Your task to perform on an android device: uninstall "Viber Messenger" Image 0: 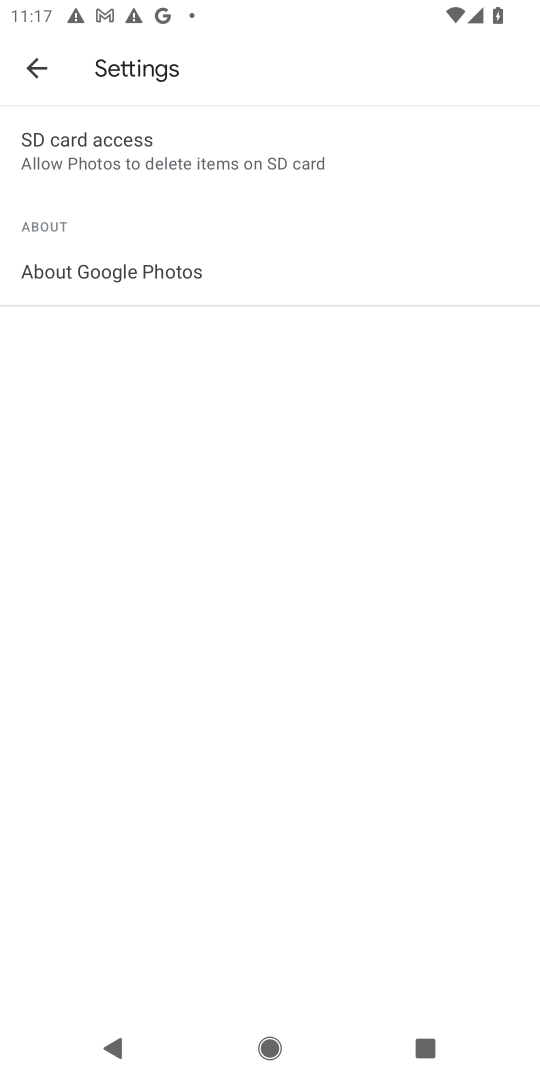
Step 0: press home button
Your task to perform on an android device: uninstall "Viber Messenger" Image 1: 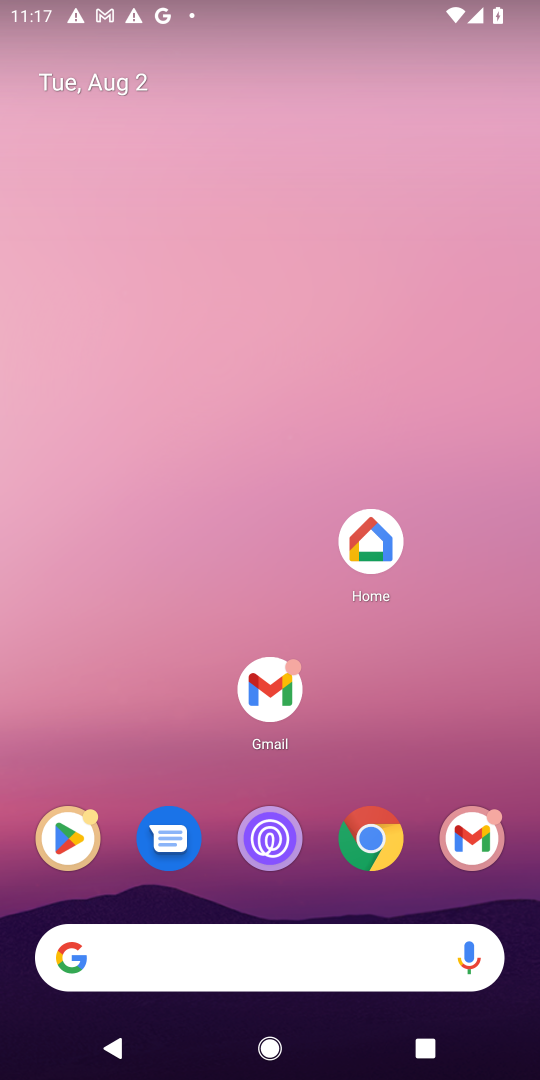
Step 1: drag from (414, 675) to (447, 151)
Your task to perform on an android device: uninstall "Viber Messenger" Image 2: 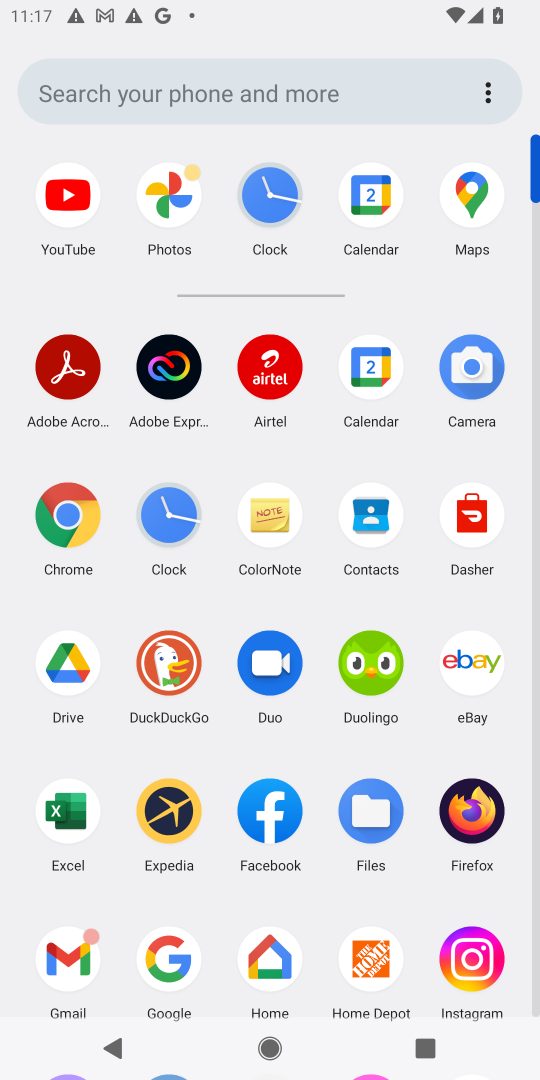
Step 2: drag from (408, 877) to (411, 524)
Your task to perform on an android device: uninstall "Viber Messenger" Image 3: 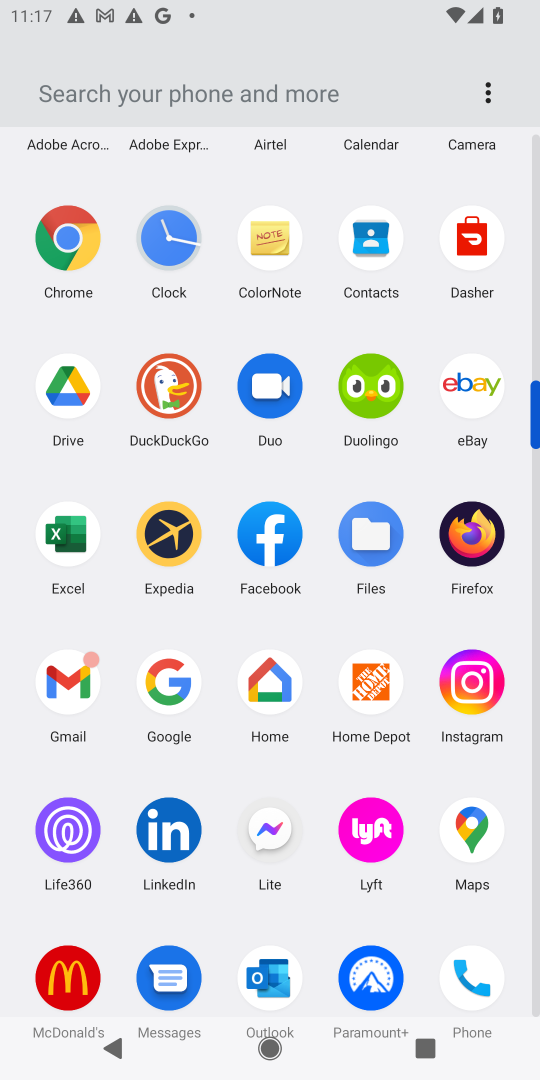
Step 3: drag from (416, 905) to (416, 589)
Your task to perform on an android device: uninstall "Viber Messenger" Image 4: 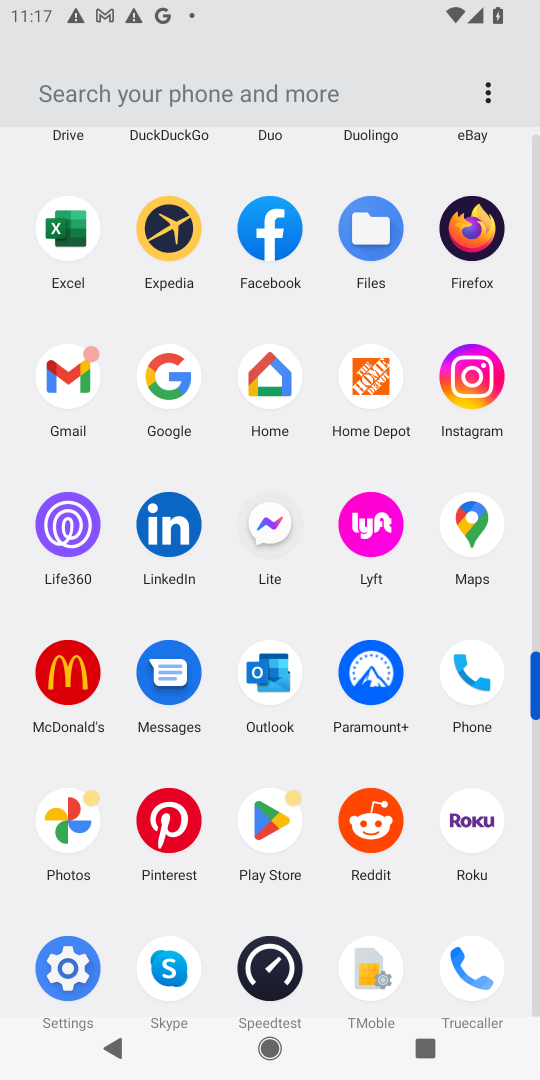
Step 4: click (276, 814)
Your task to perform on an android device: uninstall "Viber Messenger" Image 5: 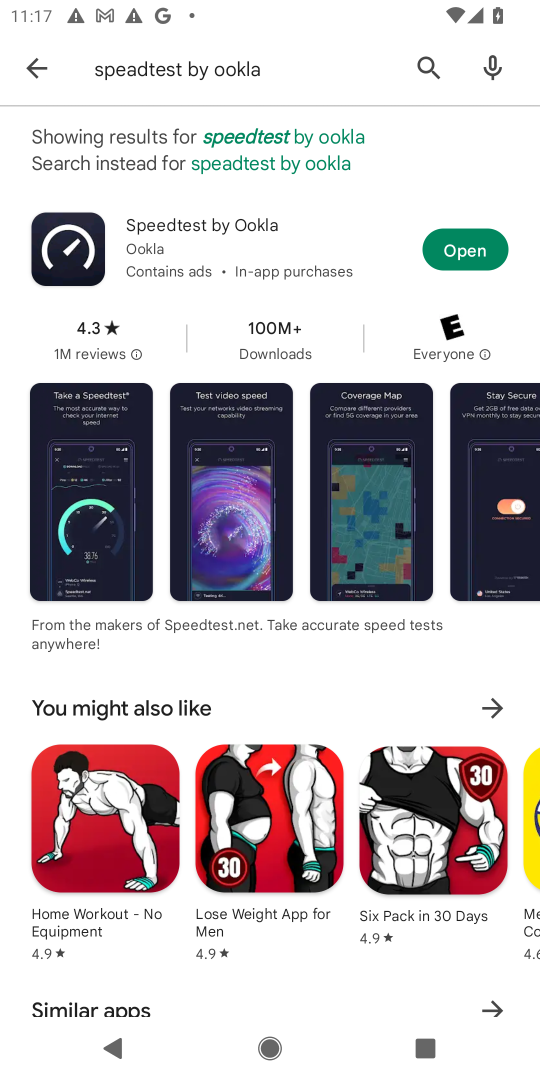
Step 5: click (423, 53)
Your task to perform on an android device: uninstall "Viber Messenger" Image 6: 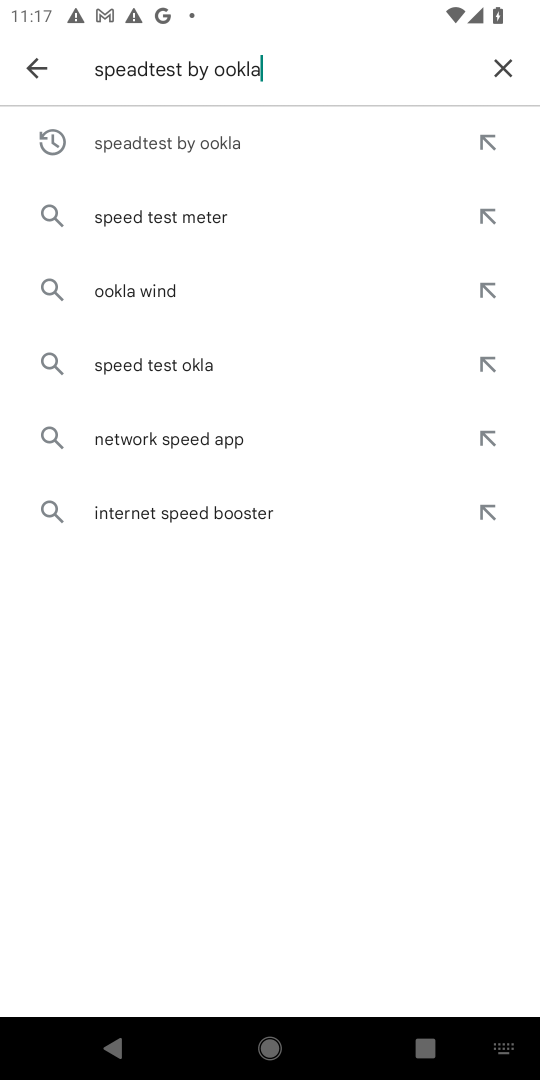
Step 6: click (495, 63)
Your task to perform on an android device: uninstall "Viber Messenger" Image 7: 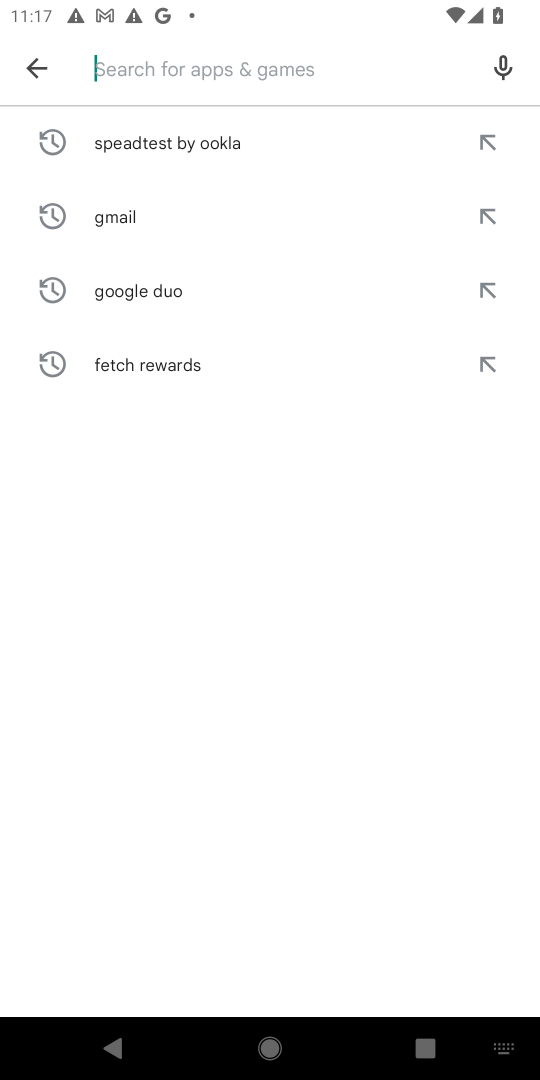
Step 7: type "viber messenger"
Your task to perform on an android device: uninstall "Viber Messenger" Image 8: 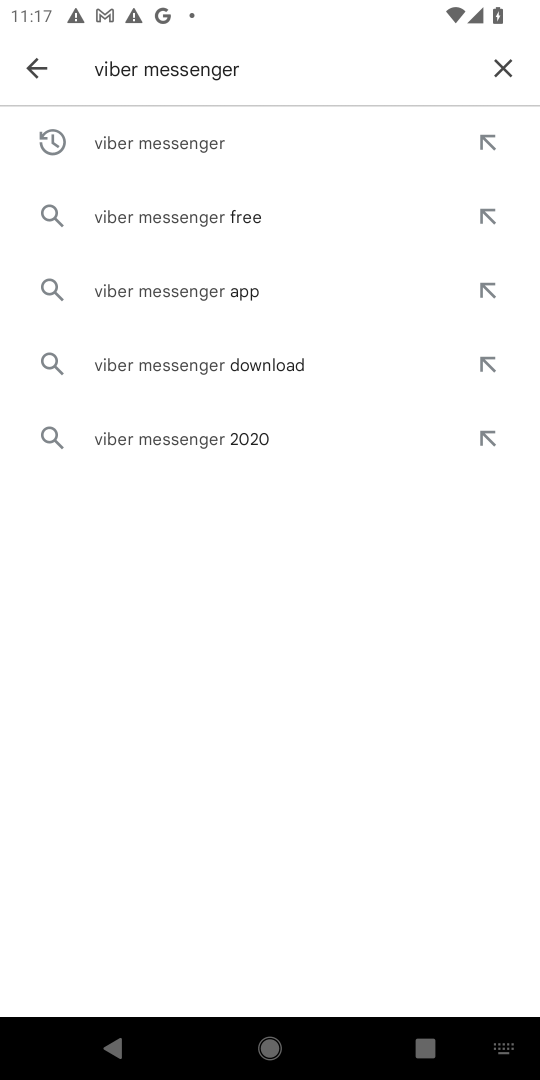
Step 8: click (252, 149)
Your task to perform on an android device: uninstall "Viber Messenger" Image 9: 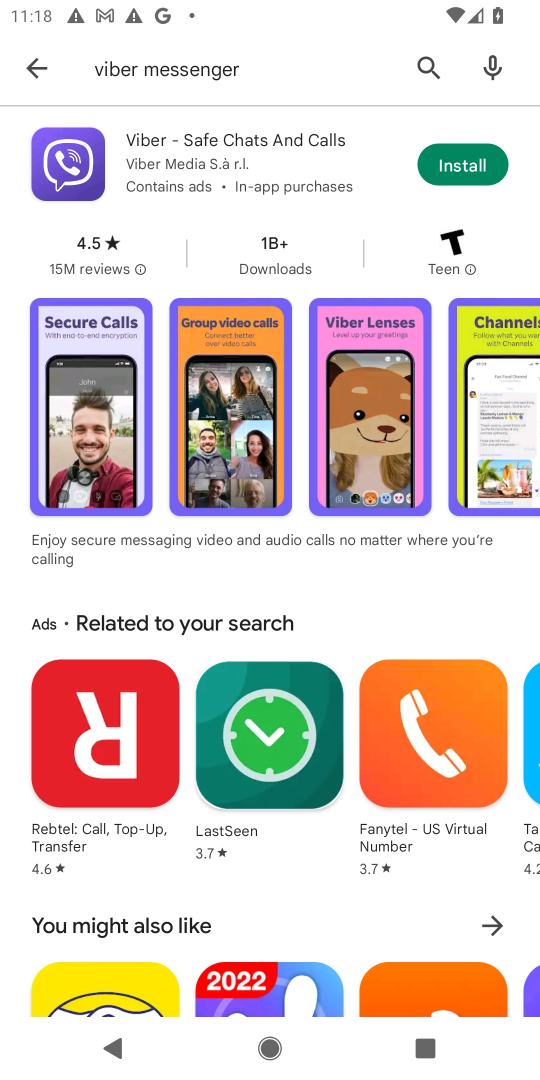
Step 9: task complete